Your task to perform on an android device: turn off improve location accuracy Image 0: 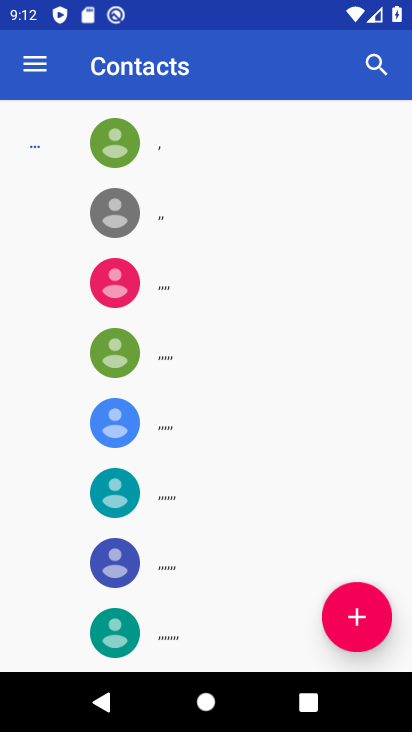
Step 0: press home button
Your task to perform on an android device: turn off improve location accuracy Image 1: 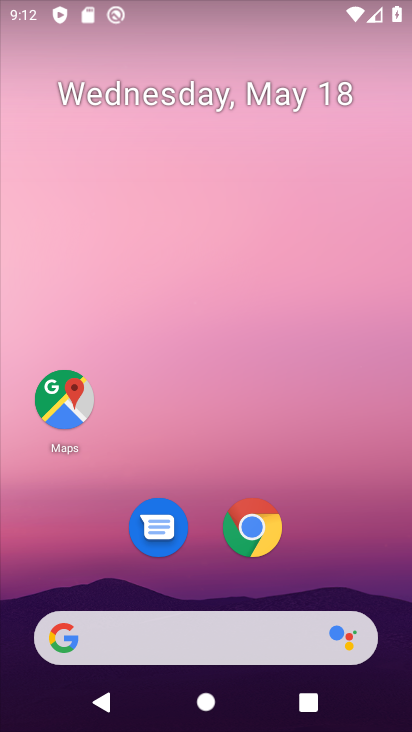
Step 1: drag from (341, 541) to (328, 156)
Your task to perform on an android device: turn off improve location accuracy Image 2: 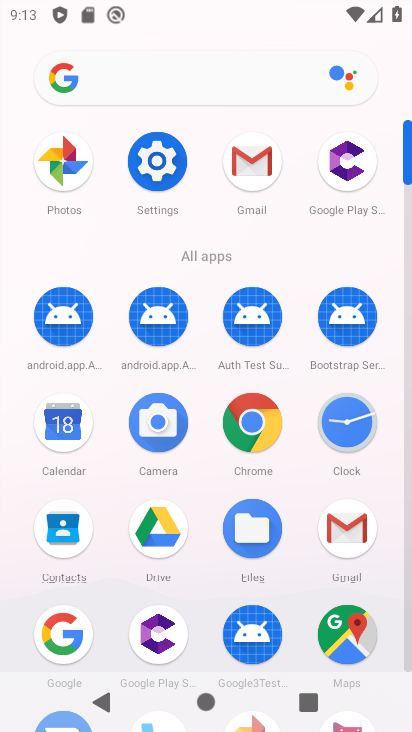
Step 2: click (158, 147)
Your task to perform on an android device: turn off improve location accuracy Image 3: 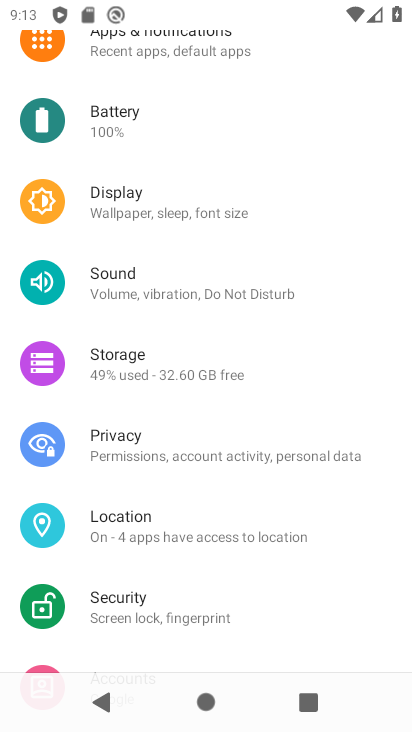
Step 3: click (207, 528)
Your task to perform on an android device: turn off improve location accuracy Image 4: 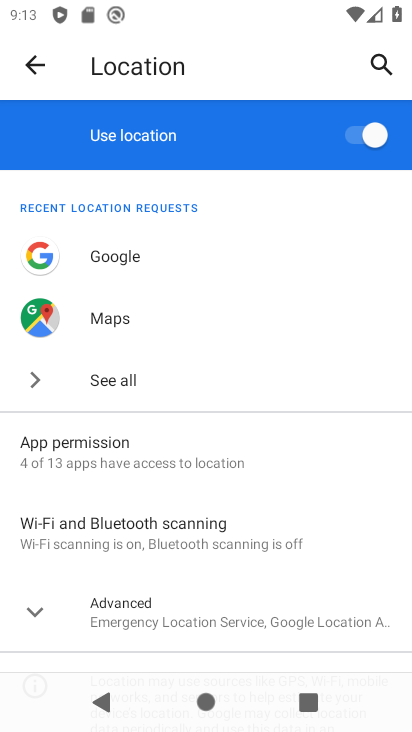
Step 4: click (194, 611)
Your task to perform on an android device: turn off improve location accuracy Image 5: 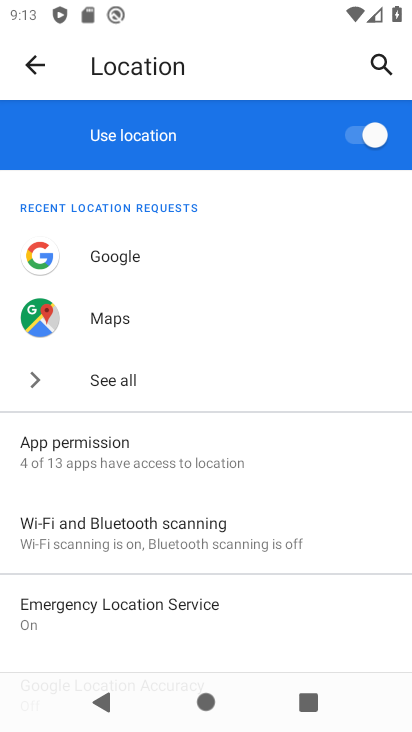
Step 5: drag from (280, 581) to (277, 376)
Your task to perform on an android device: turn off improve location accuracy Image 6: 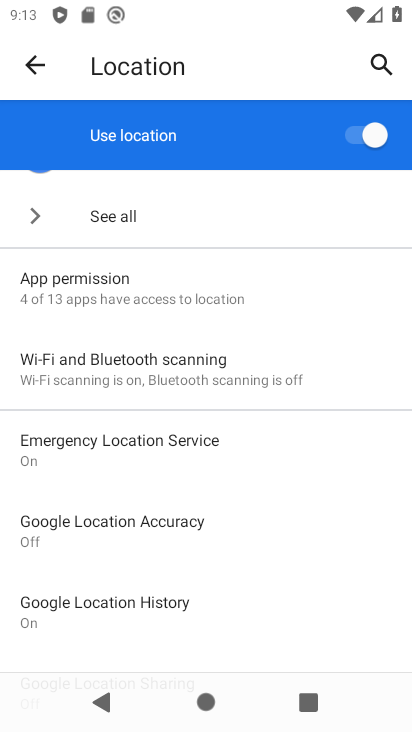
Step 6: click (185, 522)
Your task to perform on an android device: turn off improve location accuracy Image 7: 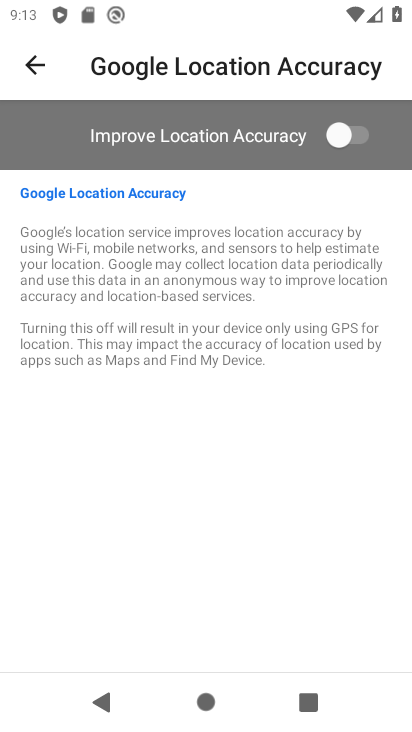
Step 7: task complete